Your task to perform on an android device: turn off picture-in-picture Image 0: 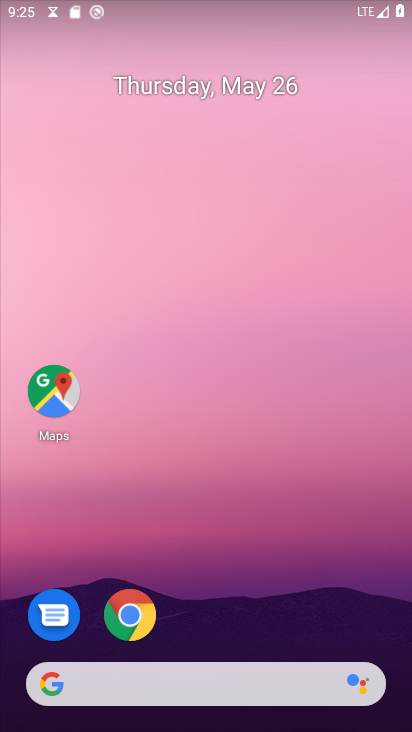
Step 0: drag from (218, 619) to (302, 113)
Your task to perform on an android device: turn off picture-in-picture Image 1: 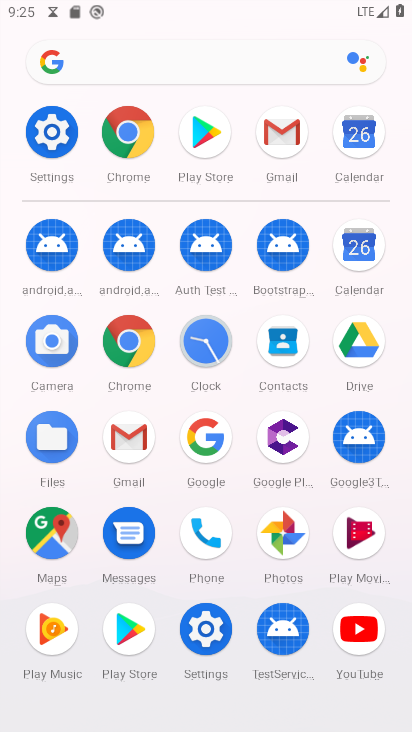
Step 1: click (50, 125)
Your task to perform on an android device: turn off picture-in-picture Image 2: 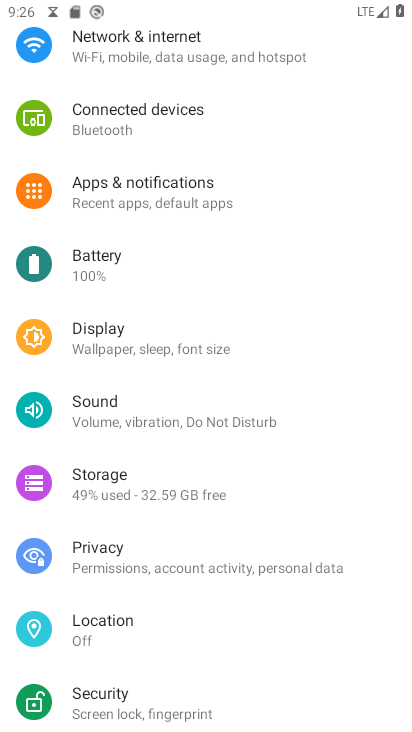
Step 2: drag from (229, 178) to (241, 575)
Your task to perform on an android device: turn off picture-in-picture Image 3: 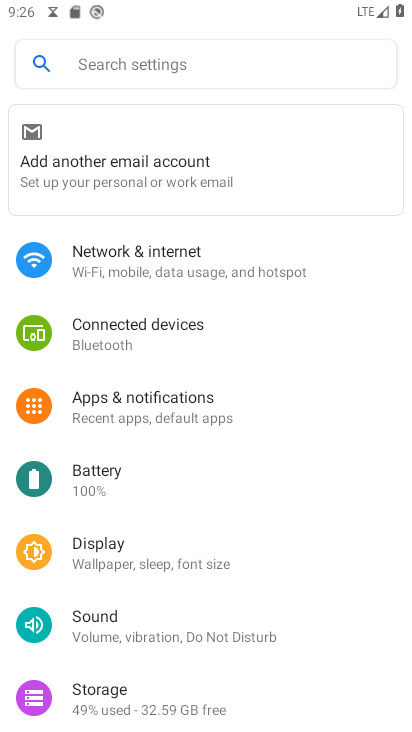
Step 3: click (164, 410)
Your task to perform on an android device: turn off picture-in-picture Image 4: 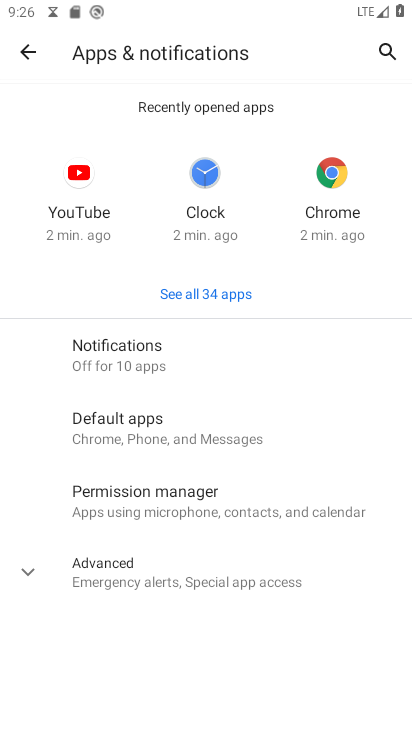
Step 4: click (187, 583)
Your task to perform on an android device: turn off picture-in-picture Image 5: 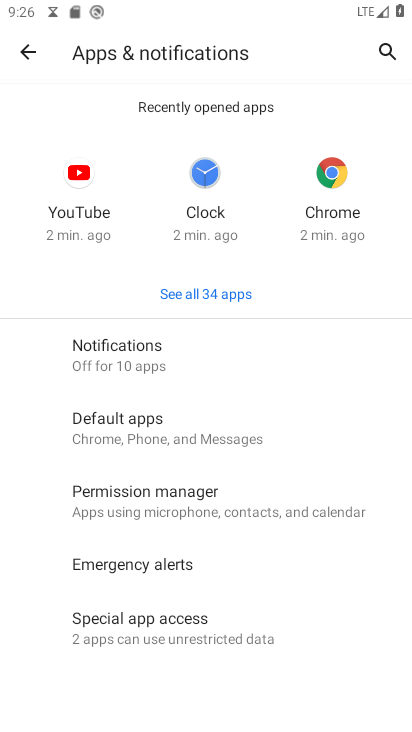
Step 5: click (154, 634)
Your task to perform on an android device: turn off picture-in-picture Image 6: 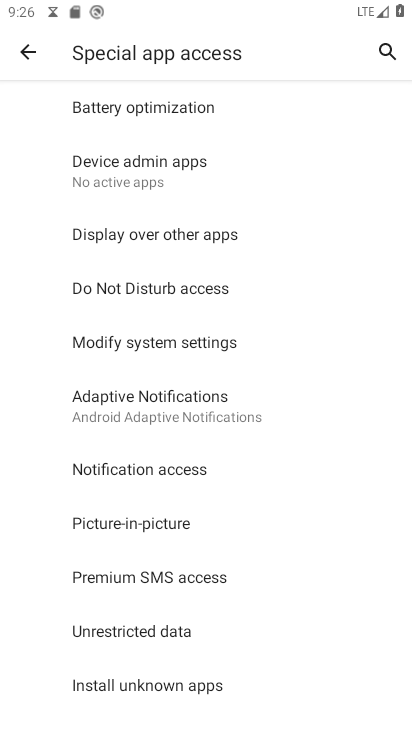
Step 6: click (165, 526)
Your task to perform on an android device: turn off picture-in-picture Image 7: 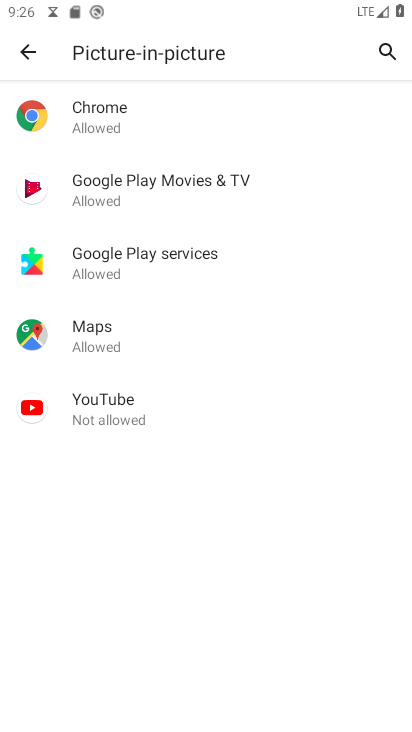
Step 7: click (129, 414)
Your task to perform on an android device: turn off picture-in-picture Image 8: 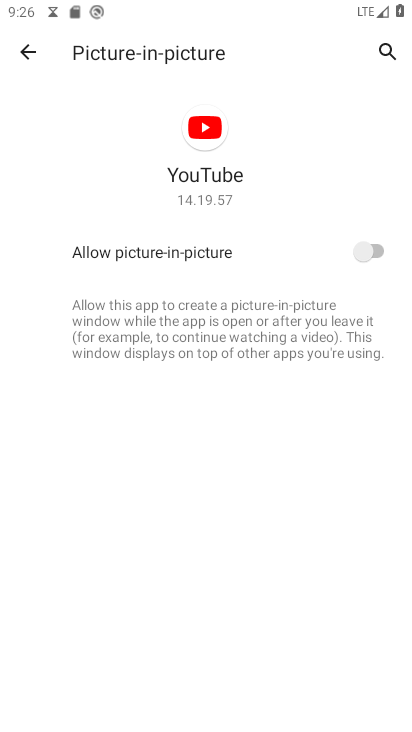
Step 8: task complete